Your task to perform on an android device: open a new tab in the chrome app Image 0: 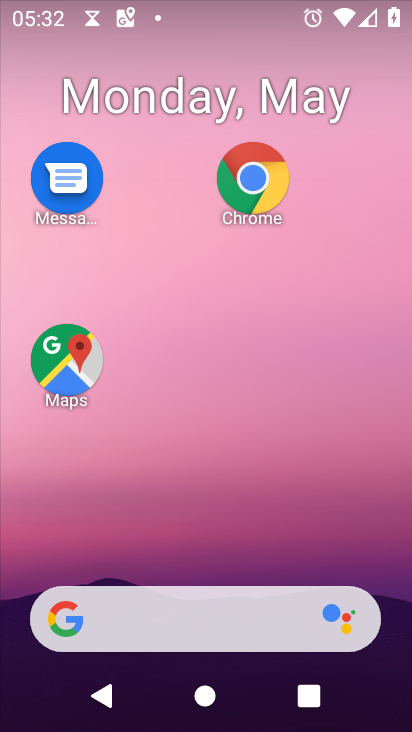
Step 0: click (254, 183)
Your task to perform on an android device: open a new tab in the chrome app Image 1: 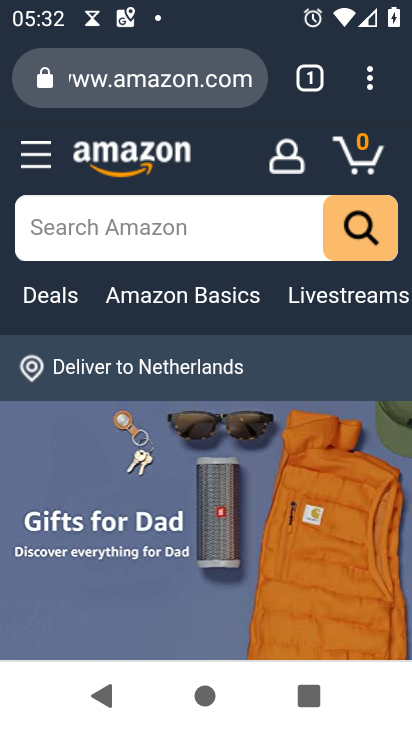
Step 1: click (309, 85)
Your task to perform on an android device: open a new tab in the chrome app Image 2: 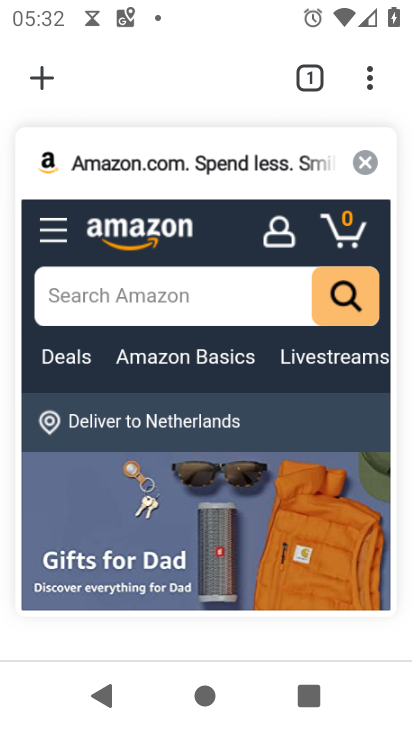
Step 2: click (29, 85)
Your task to perform on an android device: open a new tab in the chrome app Image 3: 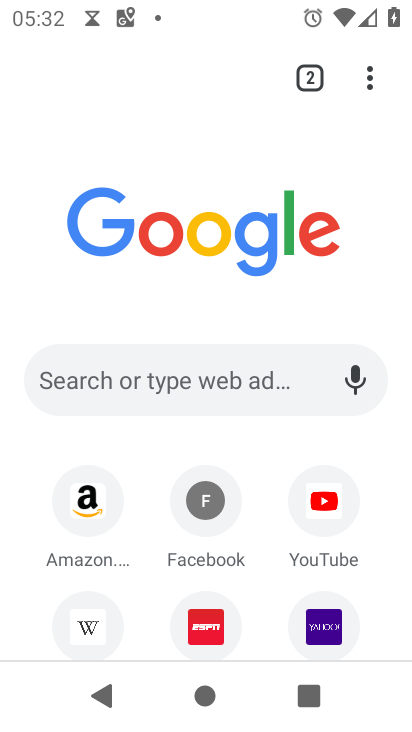
Step 3: task complete